Your task to perform on an android device: Open my contact list Image 0: 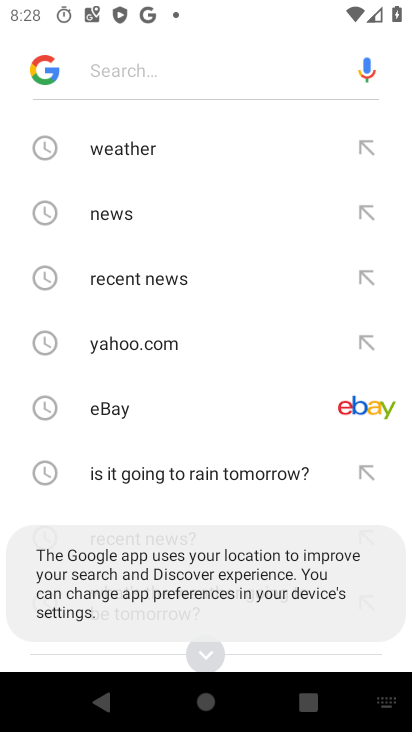
Step 0: press home button
Your task to perform on an android device: Open my contact list Image 1: 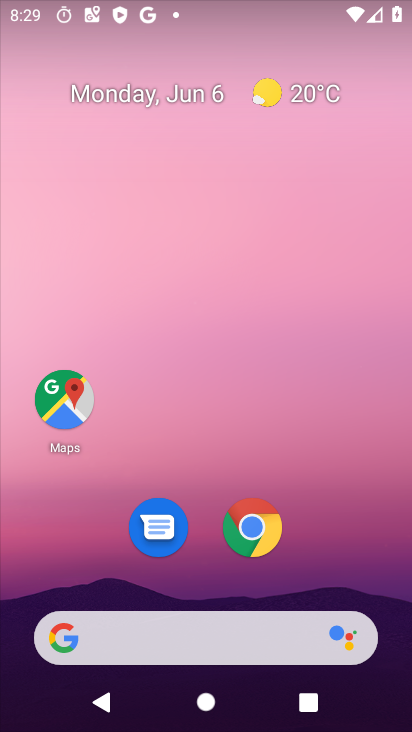
Step 1: drag from (220, 723) to (209, 94)
Your task to perform on an android device: Open my contact list Image 2: 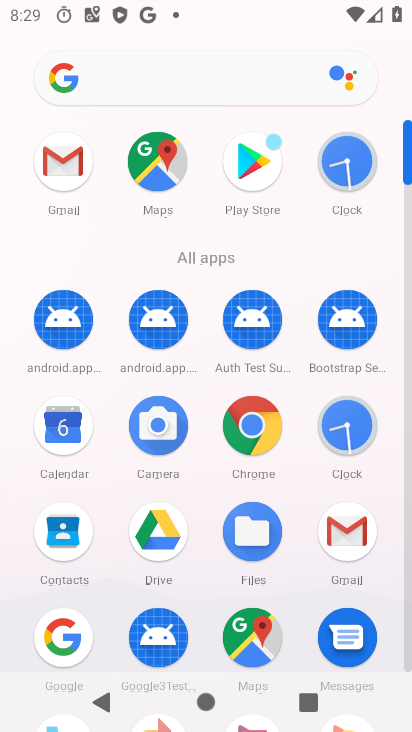
Step 2: click (52, 528)
Your task to perform on an android device: Open my contact list Image 3: 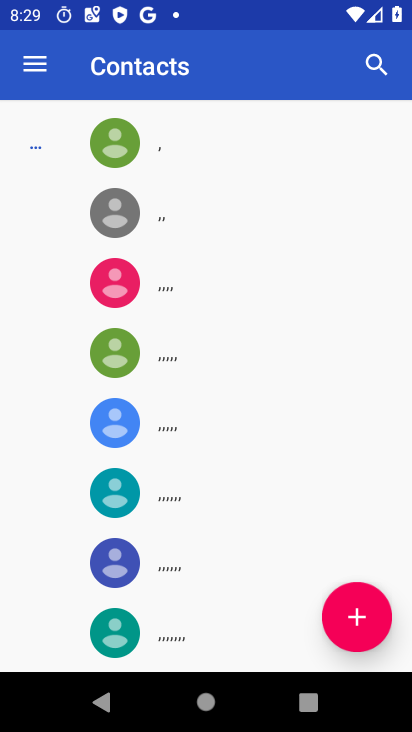
Step 3: task complete